Your task to perform on an android device: Go to internet settings Image 0: 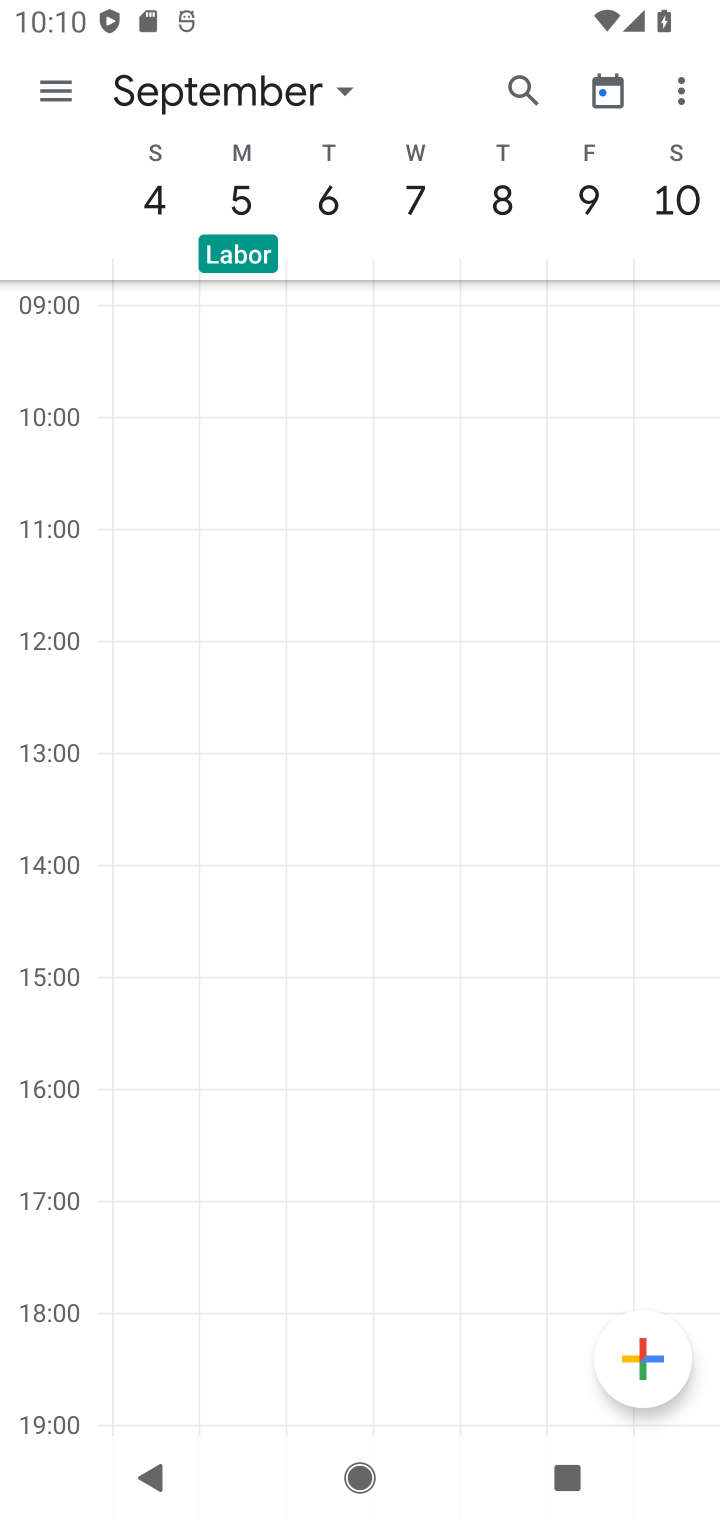
Step 0: press home button
Your task to perform on an android device: Go to internet settings Image 1: 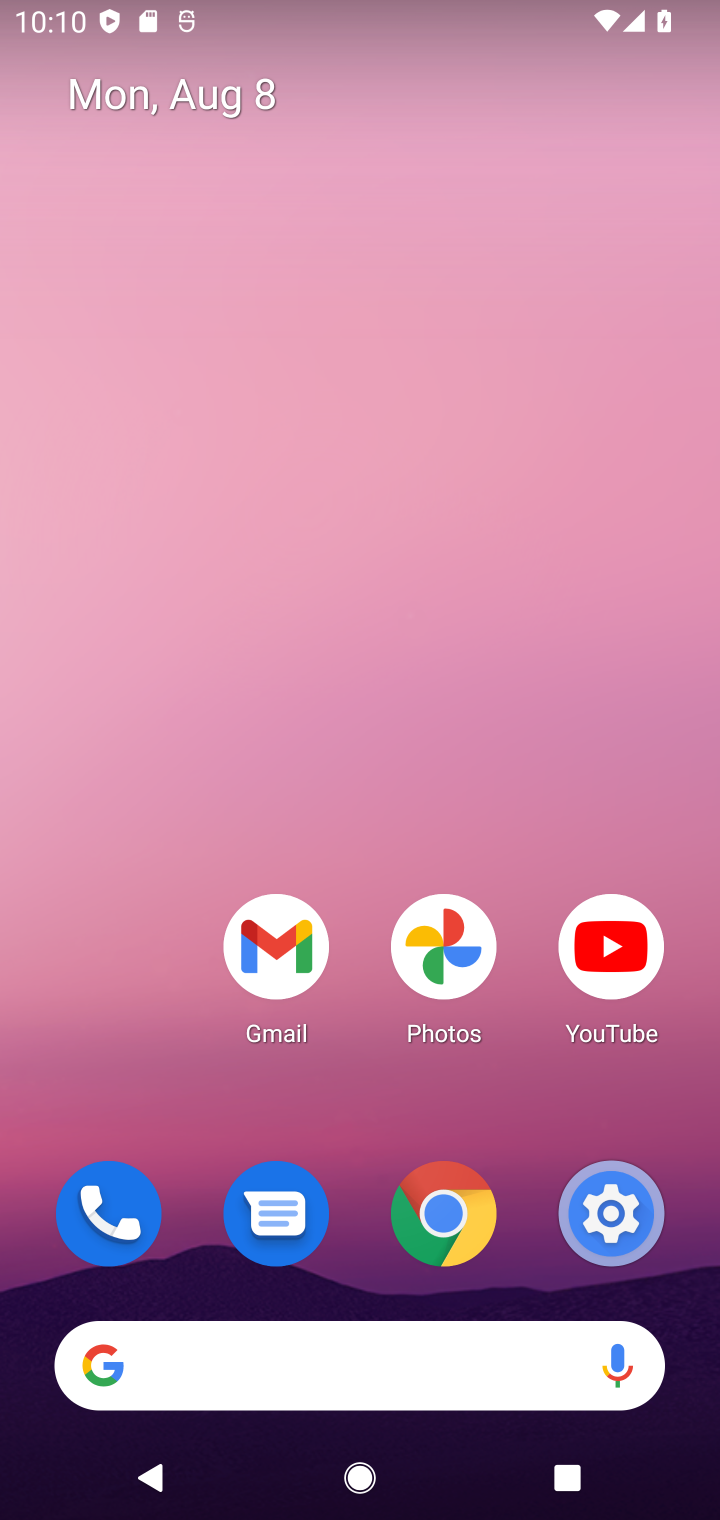
Step 1: drag from (399, 1146) to (318, 447)
Your task to perform on an android device: Go to internet settings Image 2: 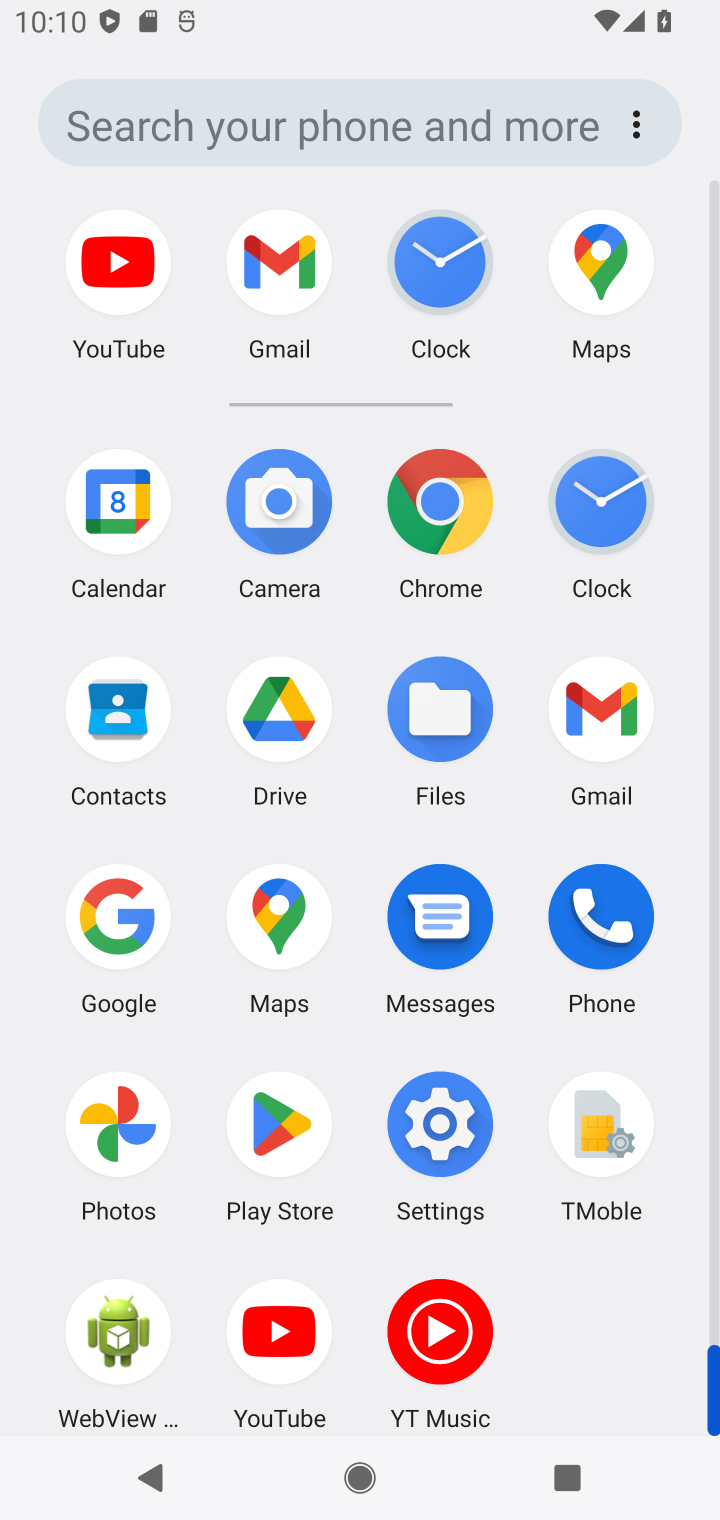
Step 2: click (436, 1128)
Your task to perform on an android device: Go to internet settings Image 3: 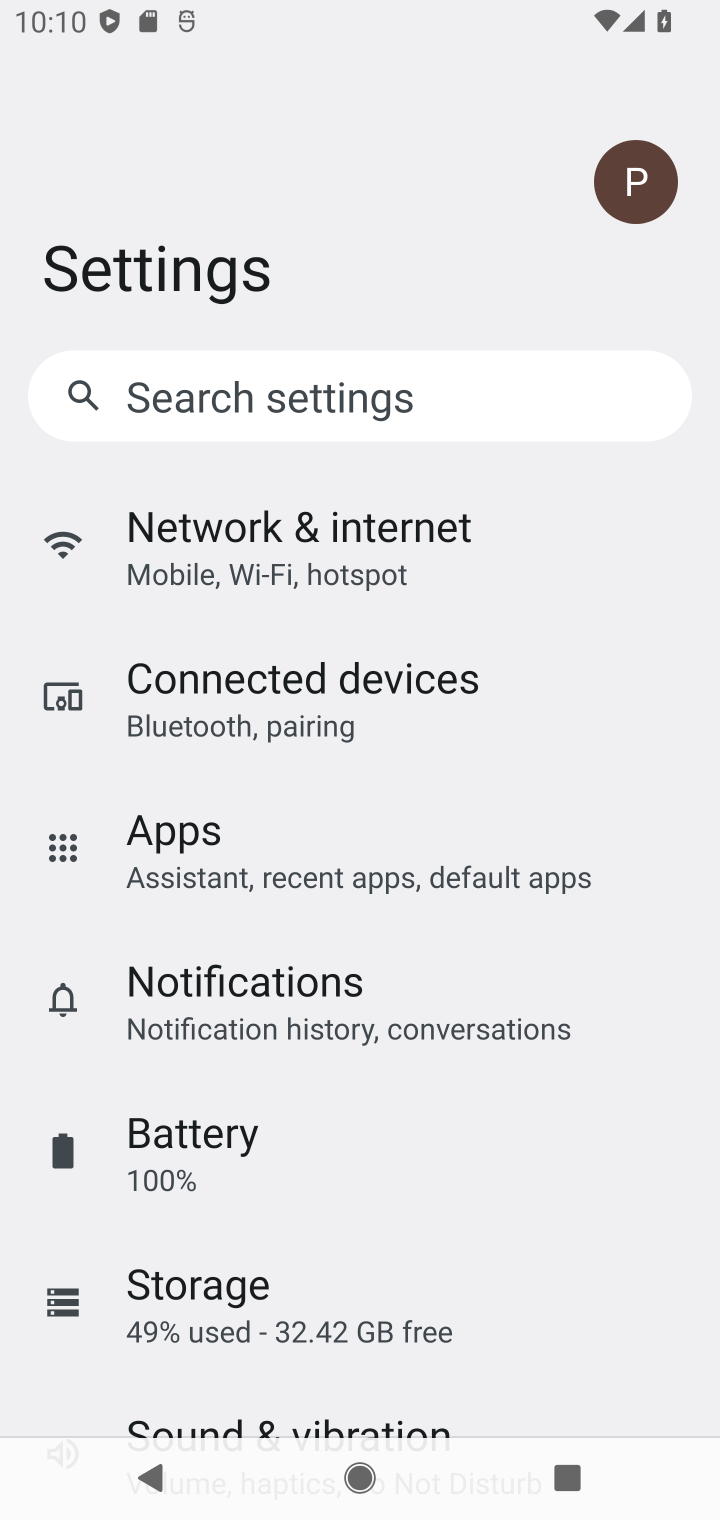
Step 3: click (333, 572)
Your task to perform on an android device: Go to internet settings Image 4: 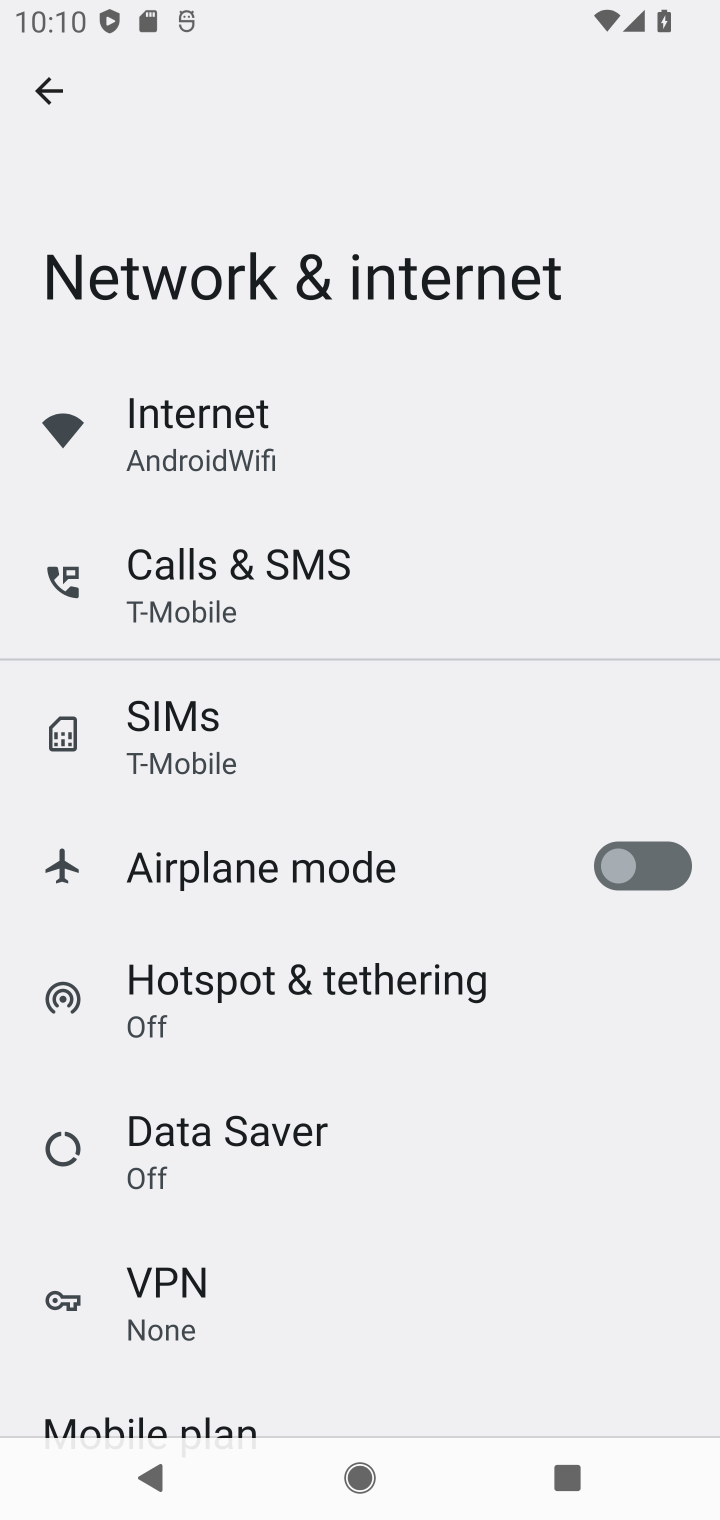
Step 4: click (288, 450)
Your task to perform on an android device: Go to internet settings Image 5: 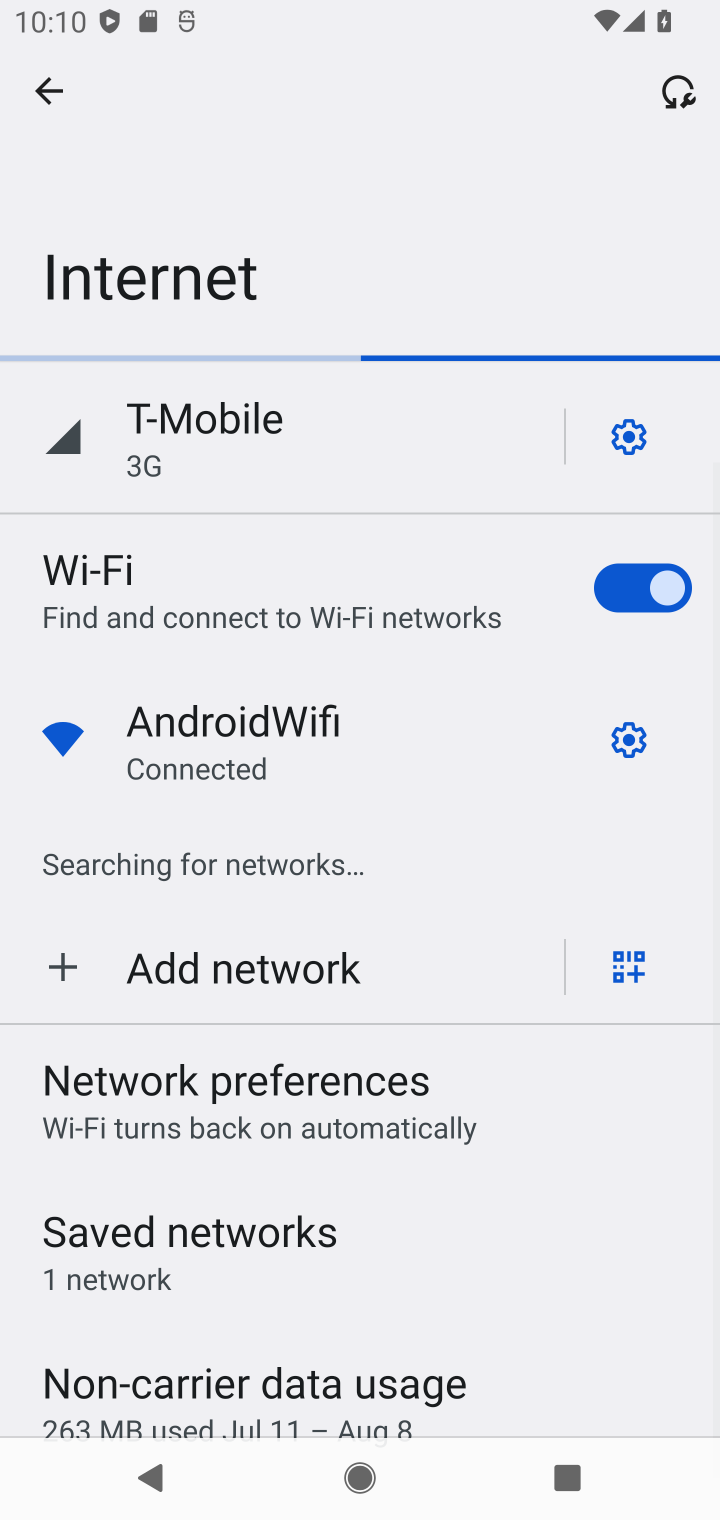
Step 5: click (288, 450)
Your task to perform on an android device: Go to internet settings Image 6: 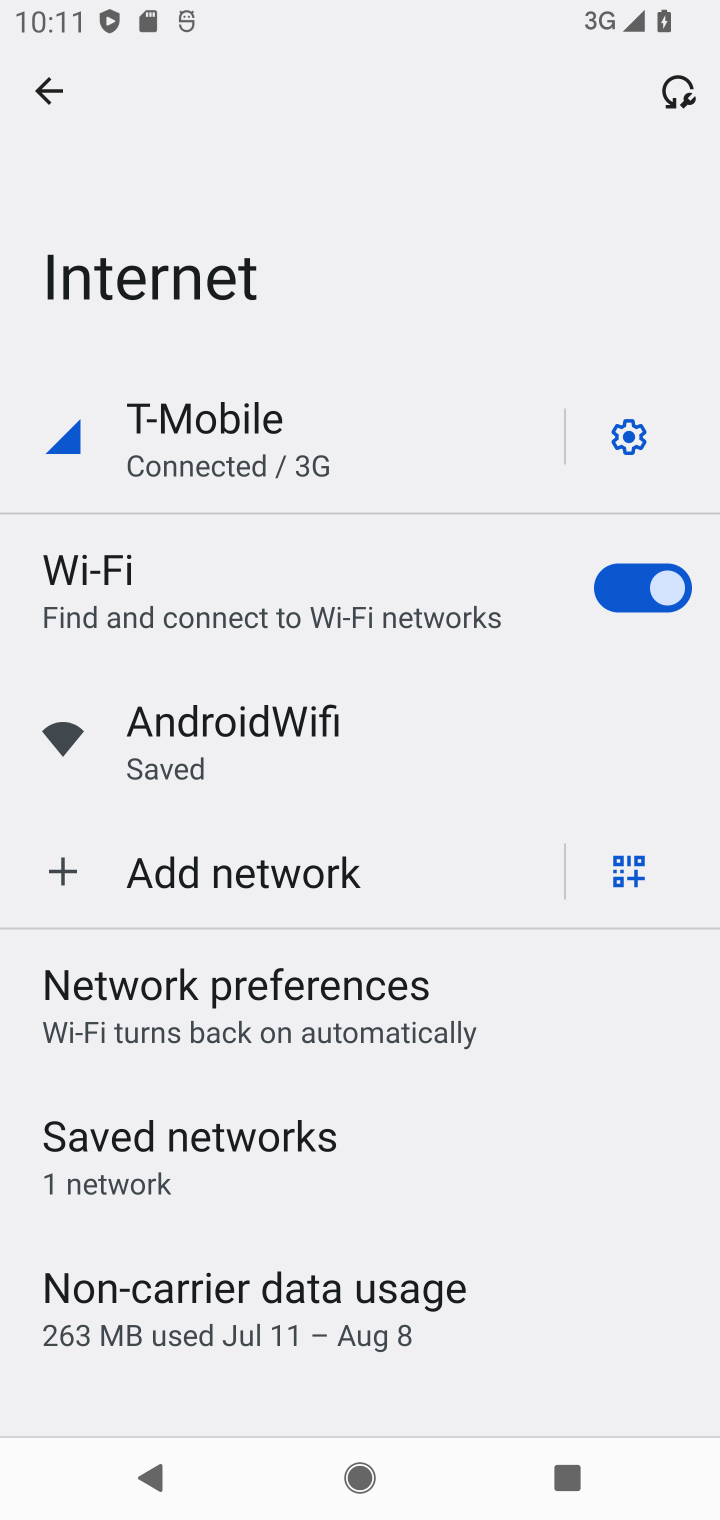
Step 6: click (226, 479)
Your task to perform on an android device: Go to internet settings Image 7: 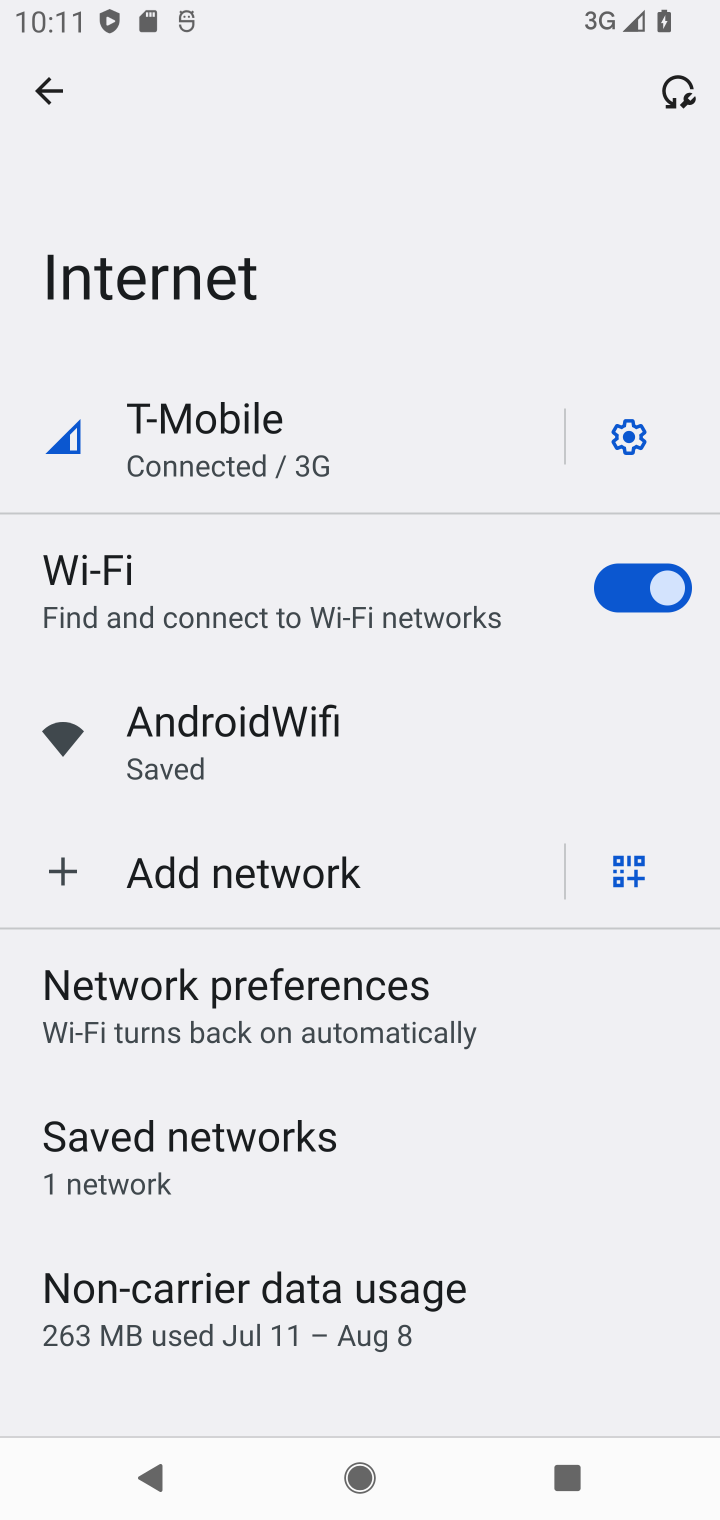
Step 7: task complete